Your task to perform on an android device: change keyboard looks Image 0: 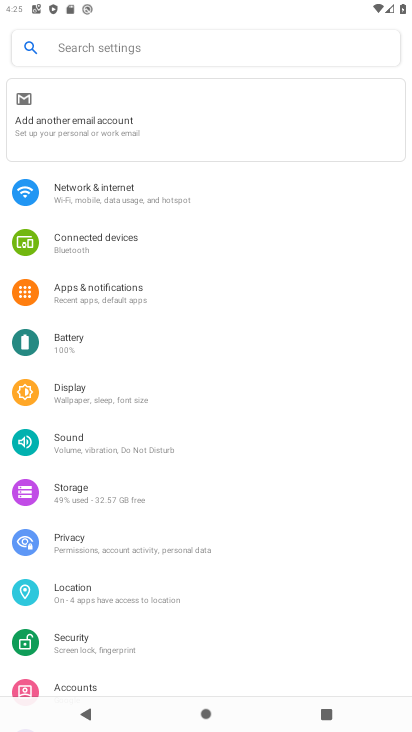
Step 0: drag from (74, 675) to (159, 189)
Your task to perform on an android device: change keyboard looks Image 1: 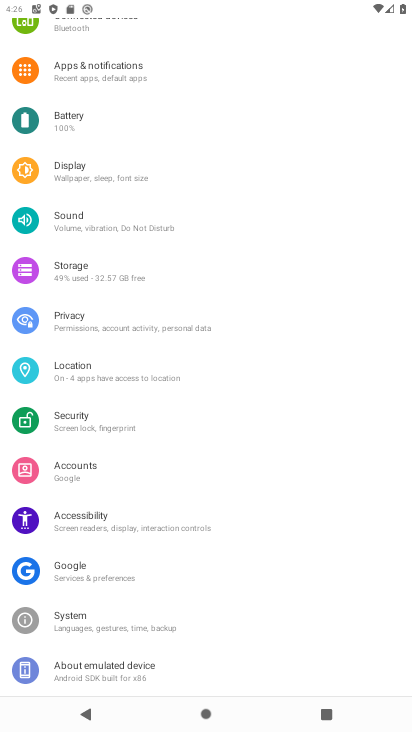
Step 1: click (81, 613)
Your task to perform on an android device: change keyboard looks Image 2: 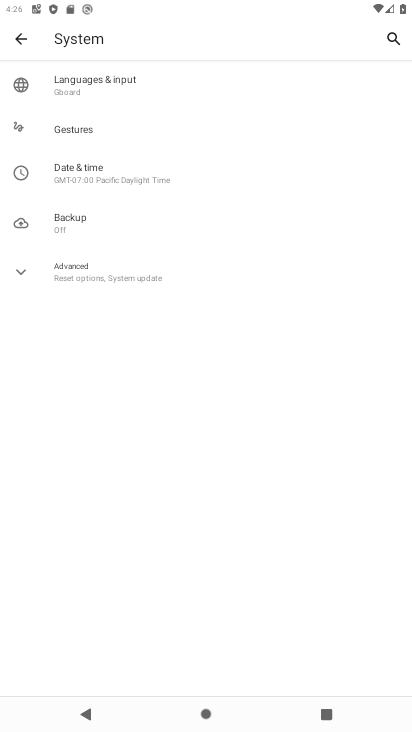
Step 2: click (146, 76)
Your task to perform on an android device: change keyboard looks Image 3: 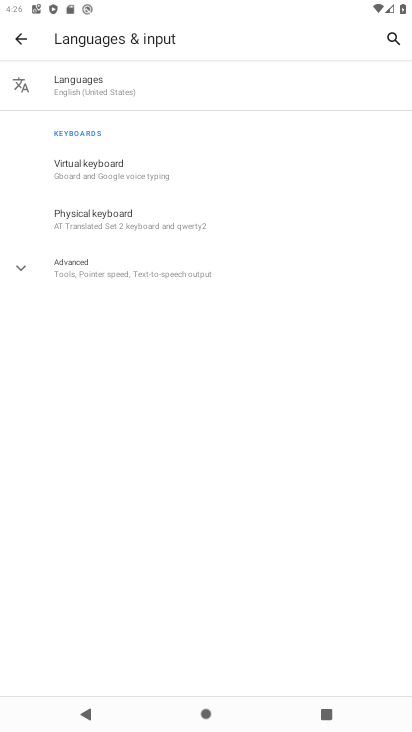
Step 3: click (100, 93)
Your task to perform on an android device: change keyboard looks Image 4: 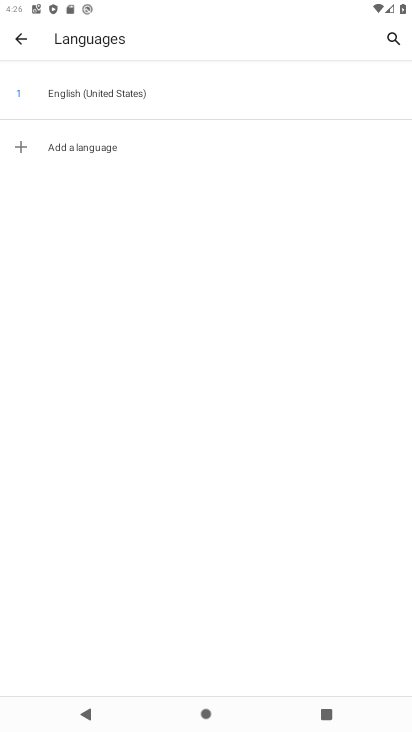
Step 4: click (29, 41)
Your task to perform on an android device: change keyboard looks Image 5: 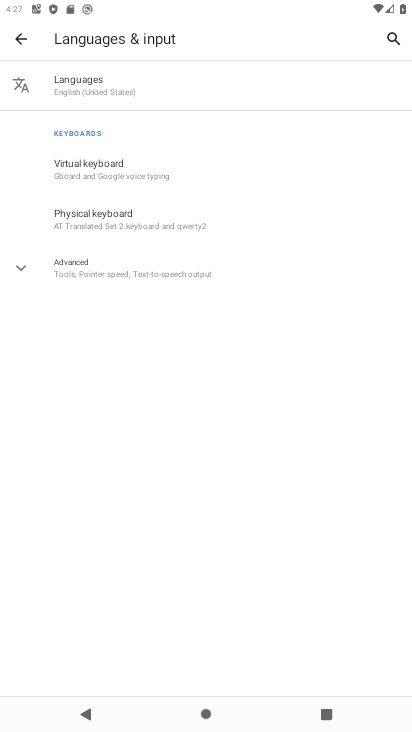
Step 5: click (110, 183)
Your task to perform on an android device: change keyboard looks Image 6: 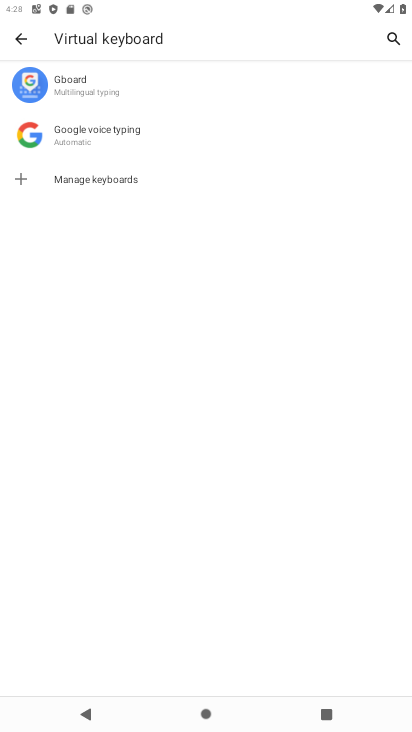
Step 6: click (87, 78)
Your task to perform on an android device: change keyboard looks Image 7: 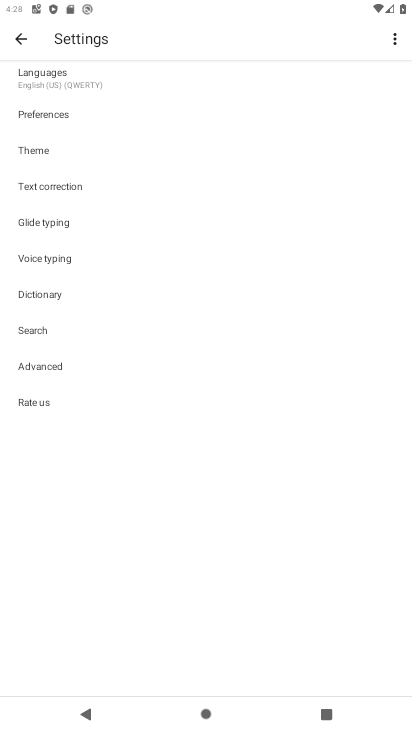
Step 7: click (166, 77)
Your task to perform on an android device: change keyboard looks Image 8: 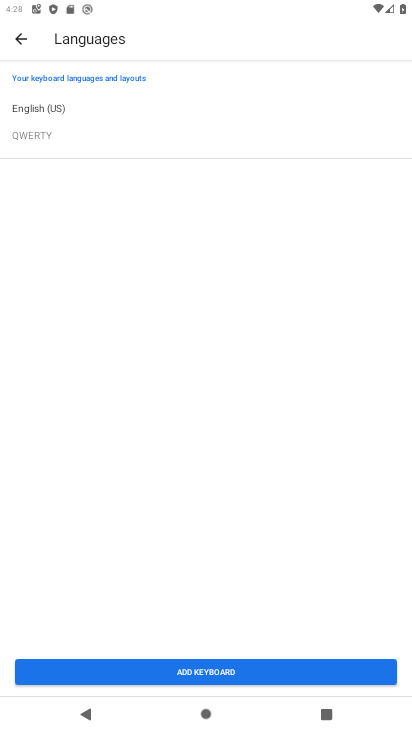
Step 8: click (29, 46)
Your task to perform on an android device: change keyboard looks Image 9: 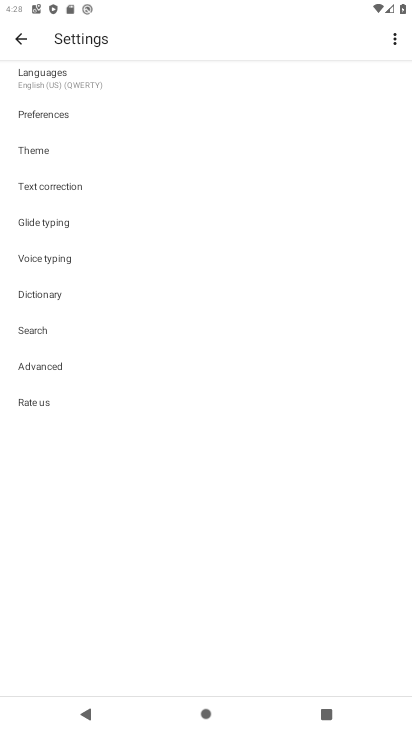
Step 9: click (116, 156)
Your task to perform on an android device: change keyboard looks Image 10: 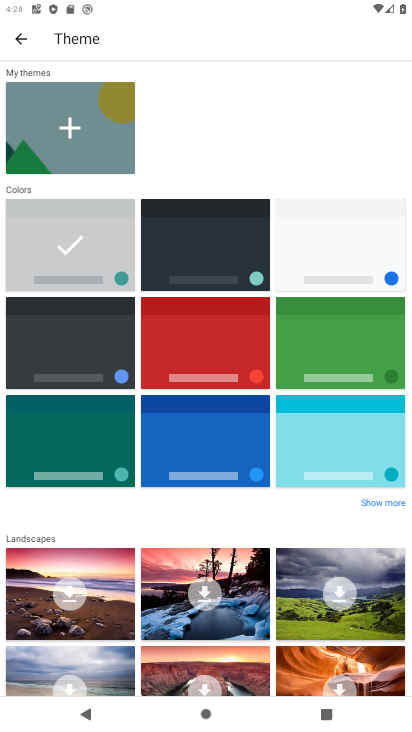
Step 10: click (211, 579)
Your task to perform on an android device: change keyboard looks Image 11: 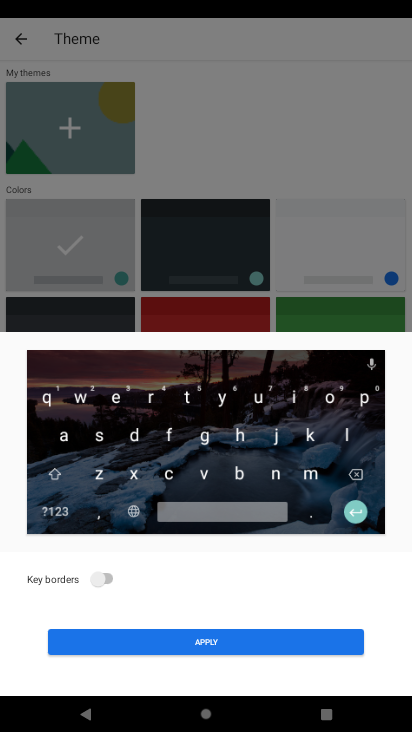
Step 11: click (154, 640)
Your task to perform on an android device: change keyboard looks Image 12: 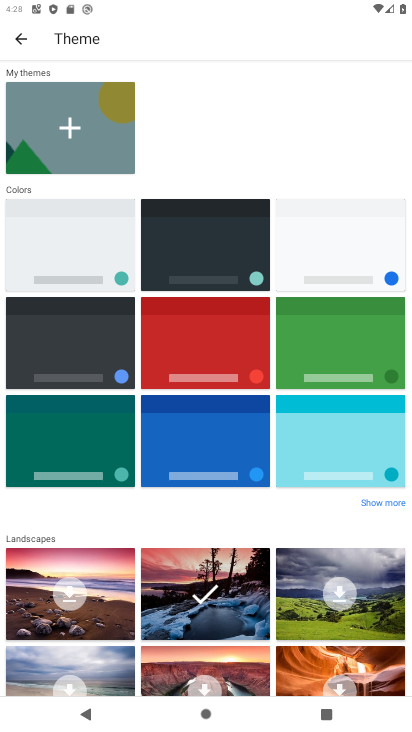
Step 12: task complete